Your task to perform on an android device: Open Google Maps Image 0: 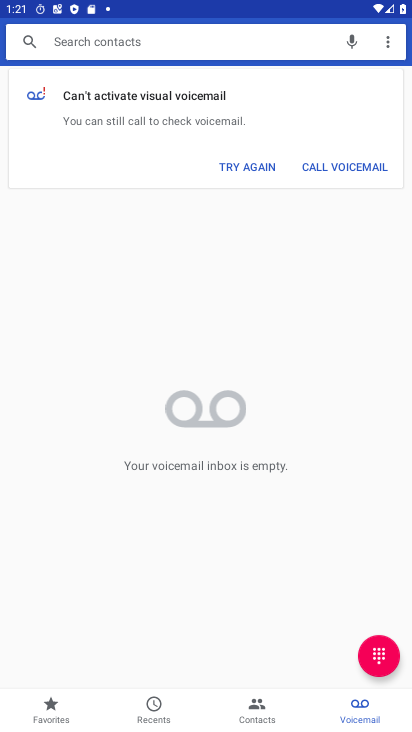
Step 0: press home button
Your task to perform on an android device: Open Google Maps Image 1: 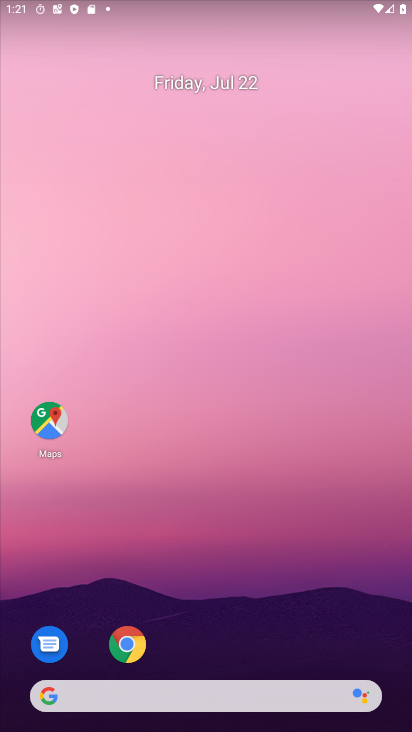
Step 1: drag from (261, 643) to (301, 62)
Your task to perform on an android device: Open Google Maps Image 2: 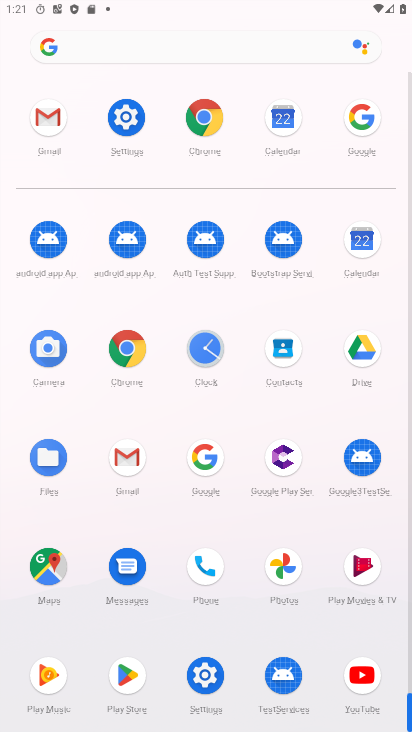
Step 2: click (55, 574)
Your task to perform on an android device: Open Google Maps Image 3: 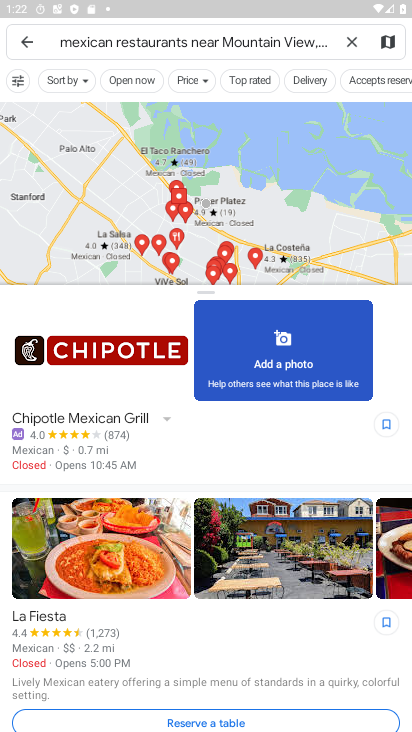
Step 3: task complete